Your task to perform on an android device: What's on my calendar today? Image 0: 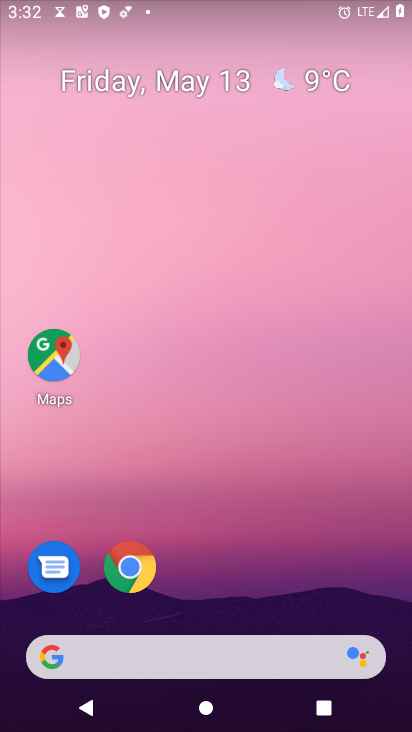
Step 0: press home button
Your task to perform on an android device: What's on my calendar today? Image 1: 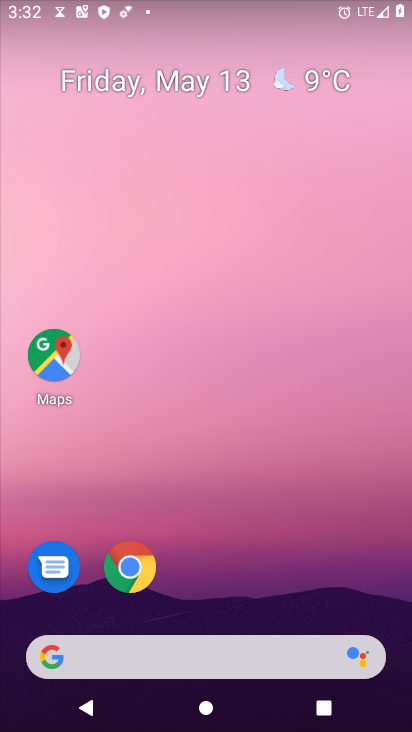
Step 1: drag from (275, 575) to (264, 0)
Your task to perform on an android device: What's on my calendar today? Image 2: 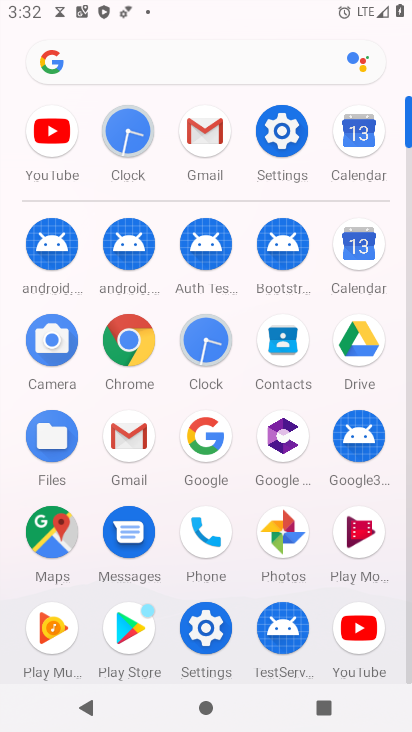
Step 2: click (356, 137)
Your task to perform on an android device: What's on my calendar today? Image 3: 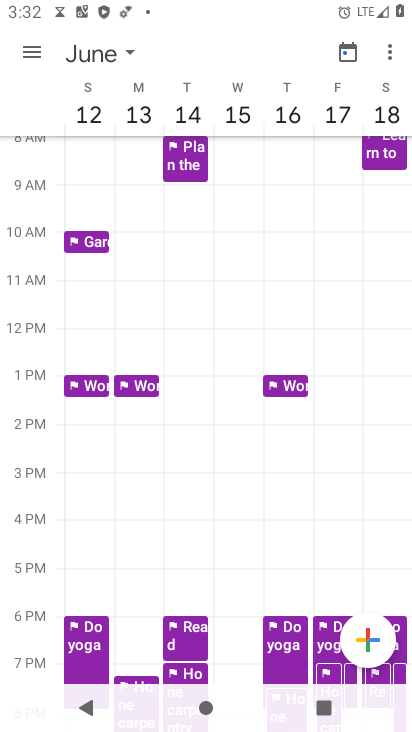
Step 3: click (348, 56)
Your task to perform on an android device: What's on my calendar today? Image 4: 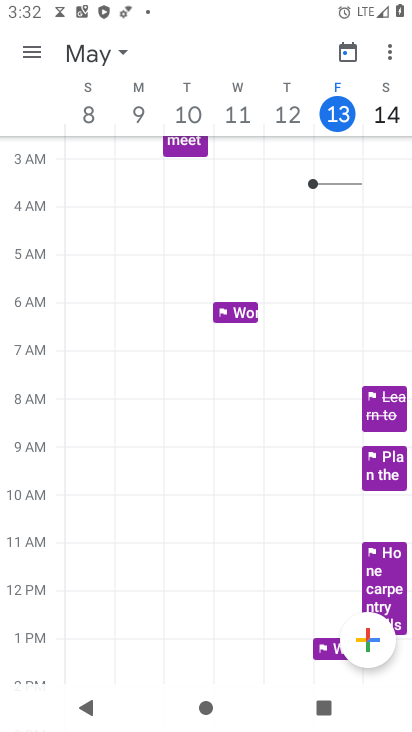
Step 4: click (28, 53)
Your task to perform on an android device: What's on my calendar today? Image 5: 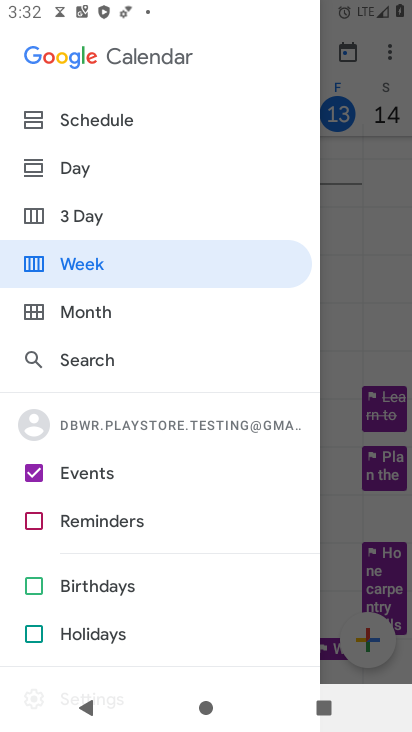
Step 5: click (67, 117)
Your task to perform on an android device: What's on my calendar today? Image 6: 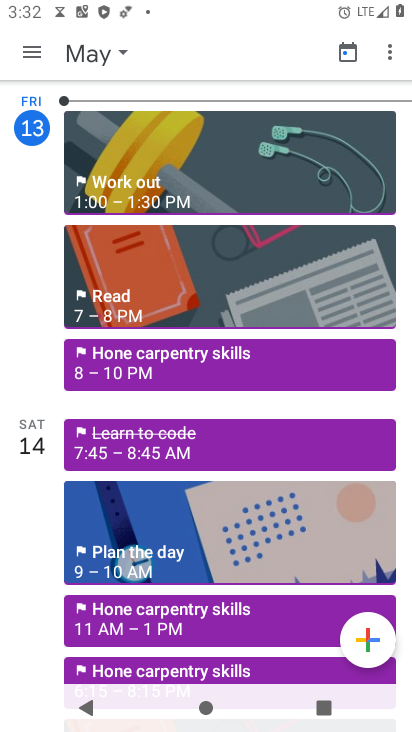
Step 6: click (191, 364)
Your task to perform on an android device: What's on my calendar today? Image 7: 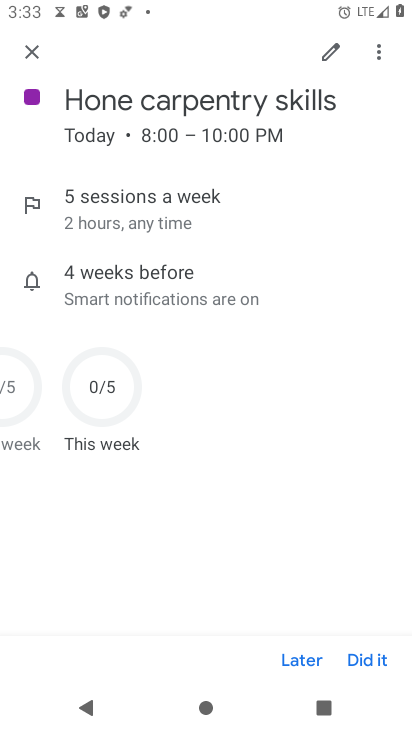
Step 7: task complete